Your task to perform on an android device: check storage Image 0: 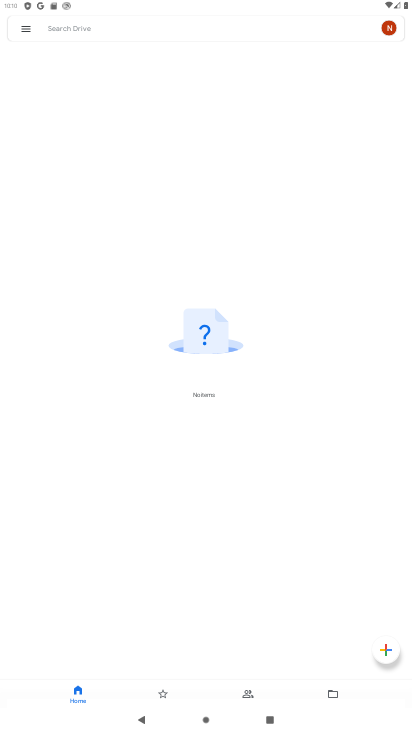
Step 0: press home button
Your task to perform on an android device: check storage Image 1: 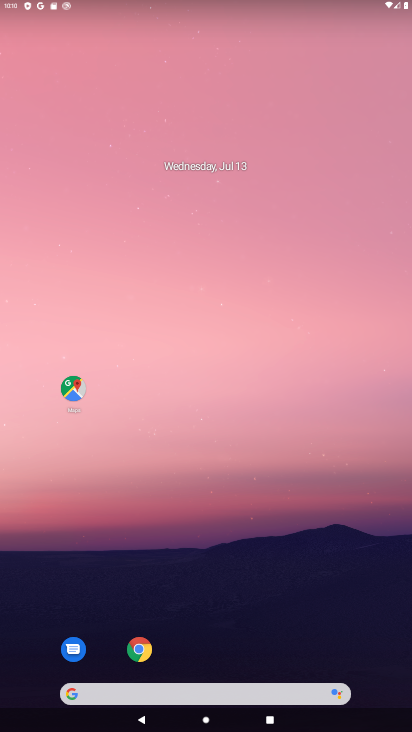
Step 1: drag from (195, 696) to (222, 277)
Your task to perform on an android device: check storage Image 2: 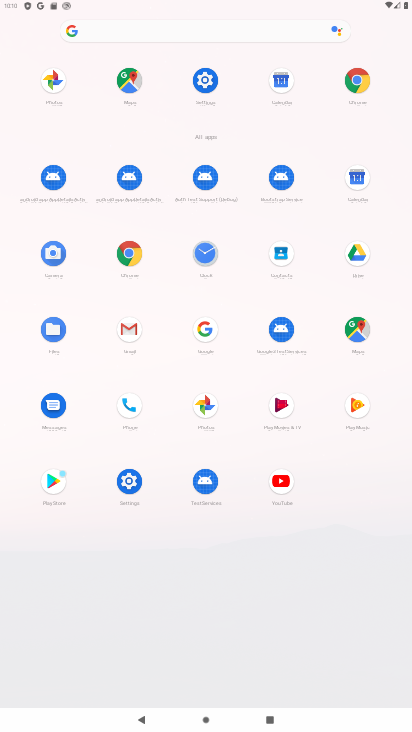
Step 2: click (132, 484)
Your task to perform on an android device: check storage Image 3: 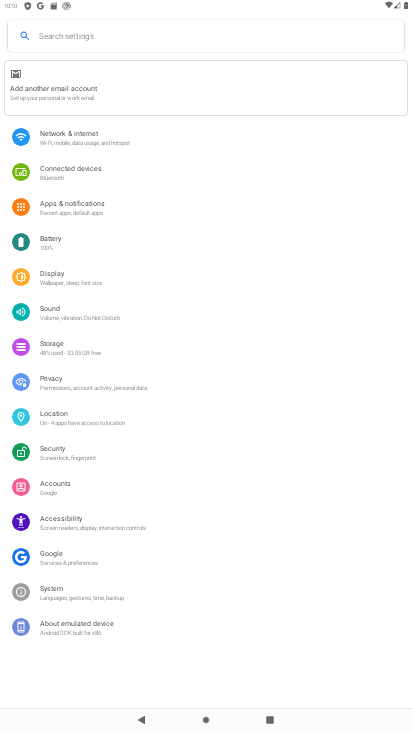
Step 3: click (82, 337)
Your task to perform on an android device: check storage Image 4: 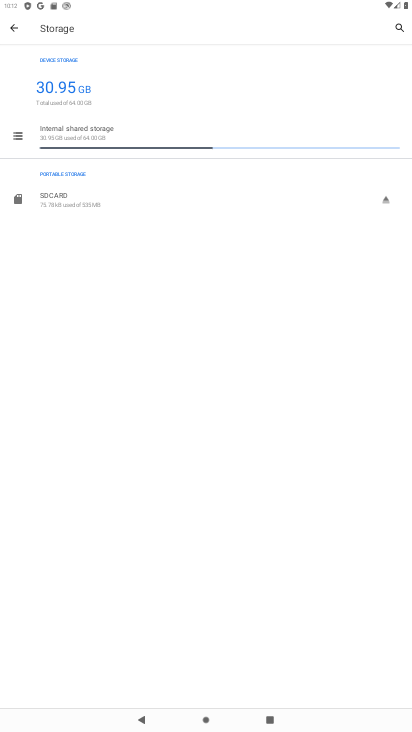
Step 4: task complete